Your task to perform on an android device: Open settings on Google Maps Image 0: 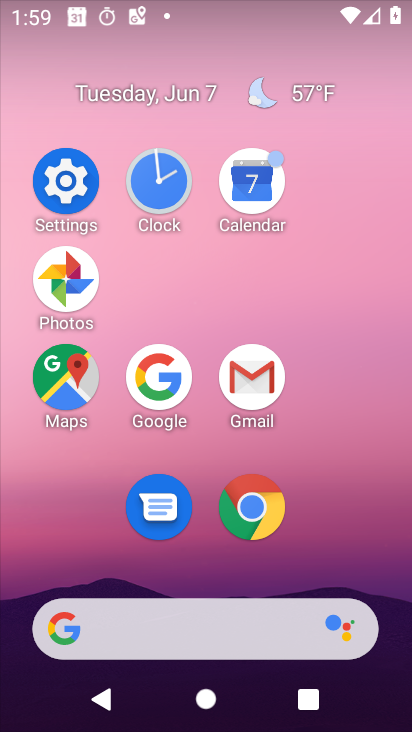
Step 0: click (64, 377)
Your task to perform on an android device: Open settings on Google Maps Image 1: 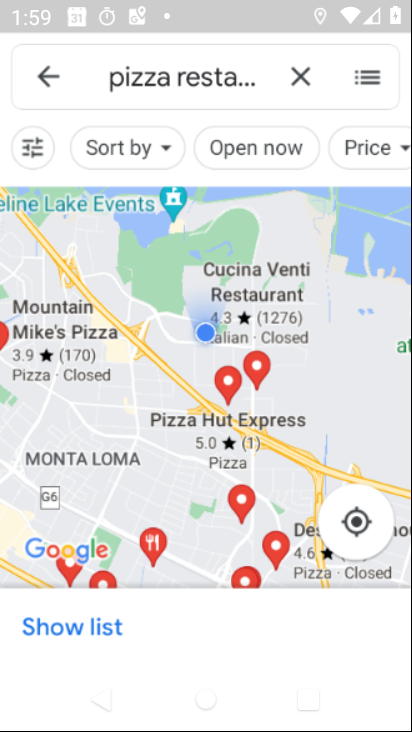
Step 1: click (45, 86)
Your task to perform on an android device: Open settings on Google Maps Image 2: 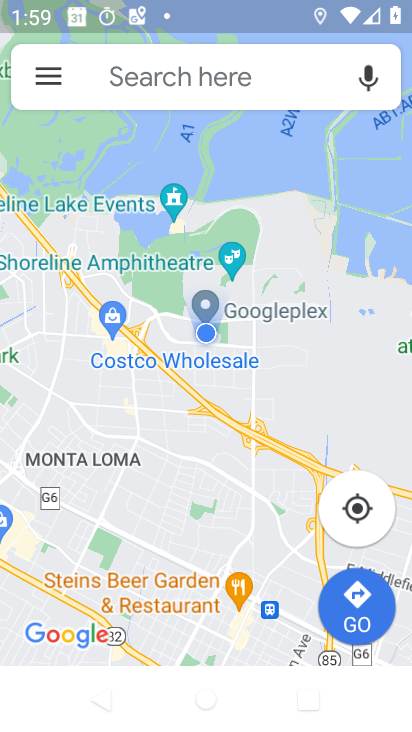
Step 2: click (46, 88)
Your task to perform on an android device: Open settings on Google Maps Image 3: 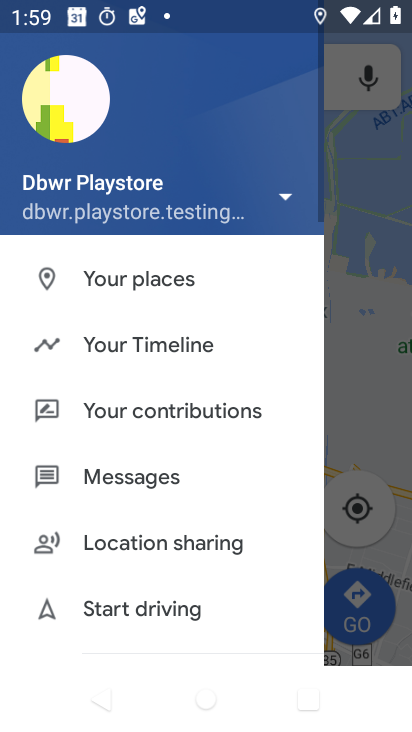
Step 3: drag from (181, 528) to (146, 222)
Your task to perform on an android device: Open settings on Google Maps Image 4: 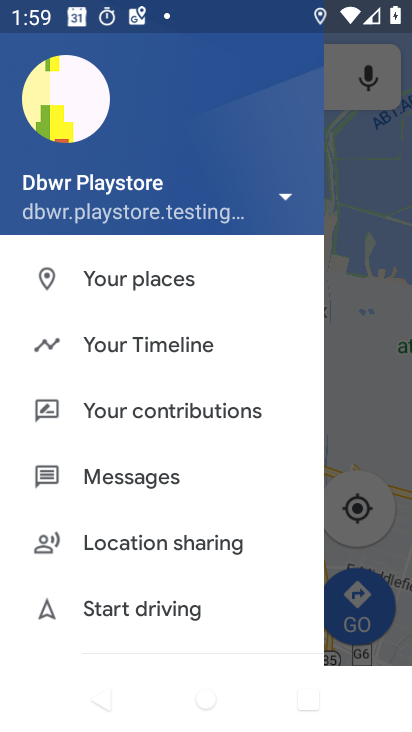
Step 4: drag from (145, 552) to (220, 208)
Your task to perform on an android device: Open settings on Google Maps Image 5: 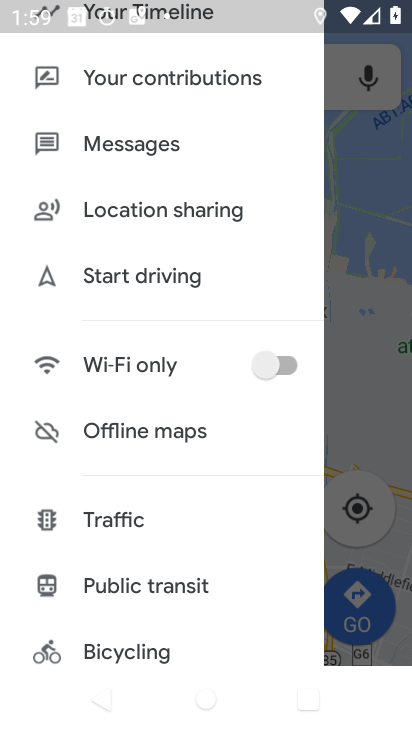
Step 5: drag from (138, 548) to (138, 251)
Your task to perform on an android device: Open settings on Google Maps Image 6: 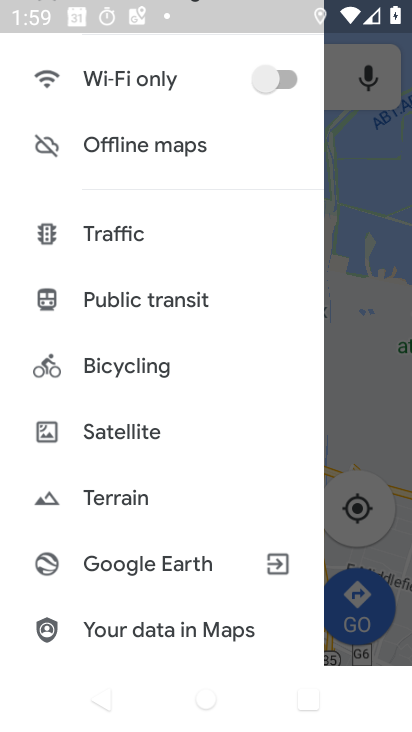
Step 6: drag from (150, 496) to (177, 232)
Your task to perform on an android device: Open settings on Google Maps Image 7: 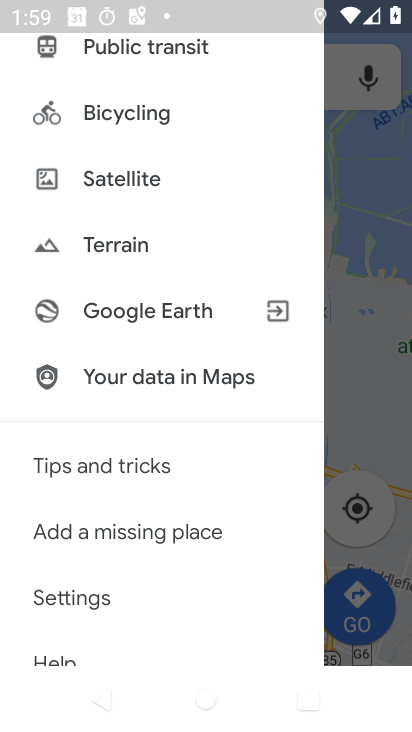
Step 7: click (106, 590)
Your task to perform on an android device: Open settings on Google Maps Image 8: 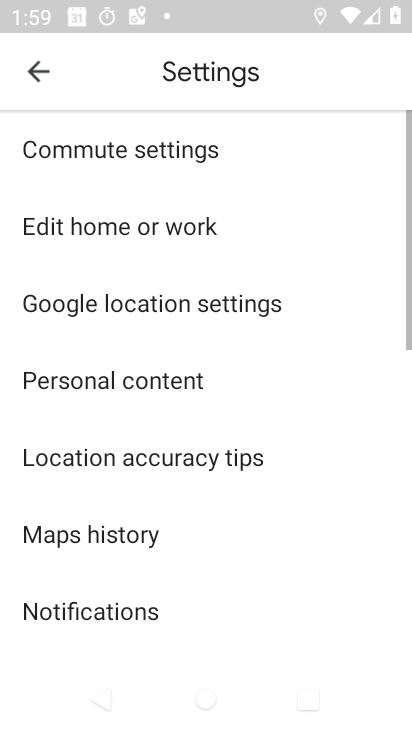
Step 8: task complete